Your task to perform on an android device: empty trash in google photos Image 0: 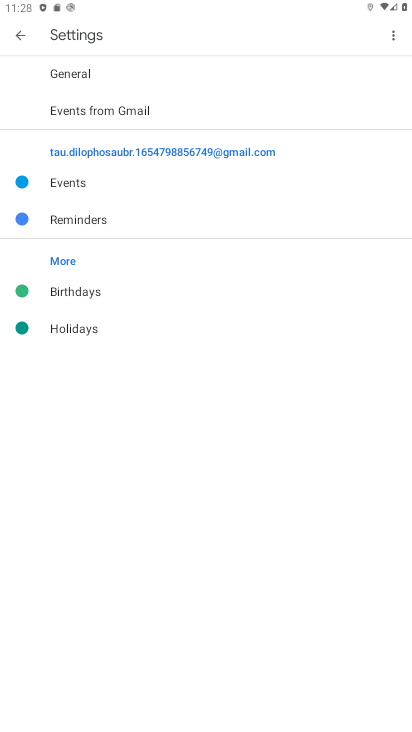
Step 0: press home button
Your task to perform on an android device: empty trash in google photos Image 1: 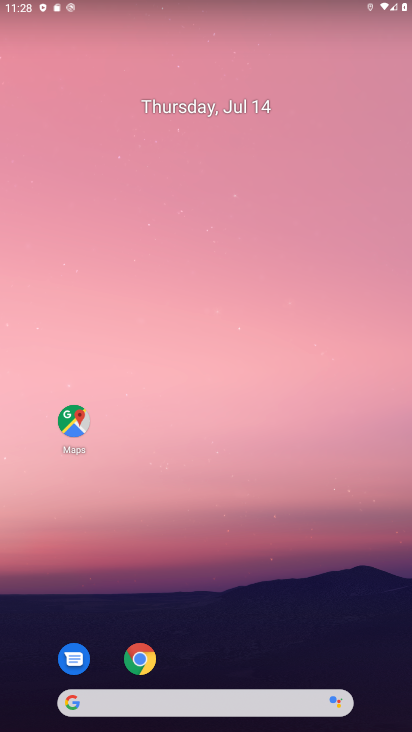
Step 1: drag from (212, 669) to (223, 219)
Your task to perform on an android device: empty trash in google photos Image 2: 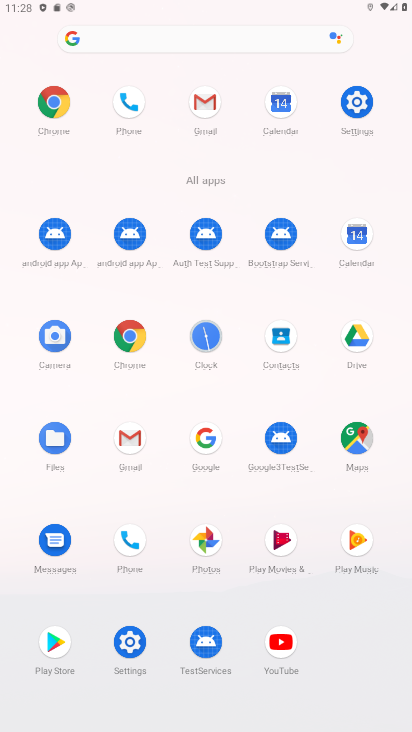
Step 2: click (203, 540)
Your task to perform on an android device: empty trash in google photos Image 3: 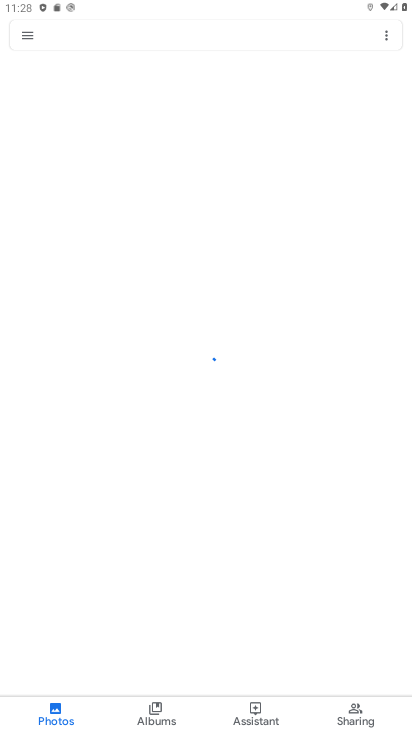
Step 3: click (27, 26)
Your task to perform on an android device: empty trash in google photos Image 4: 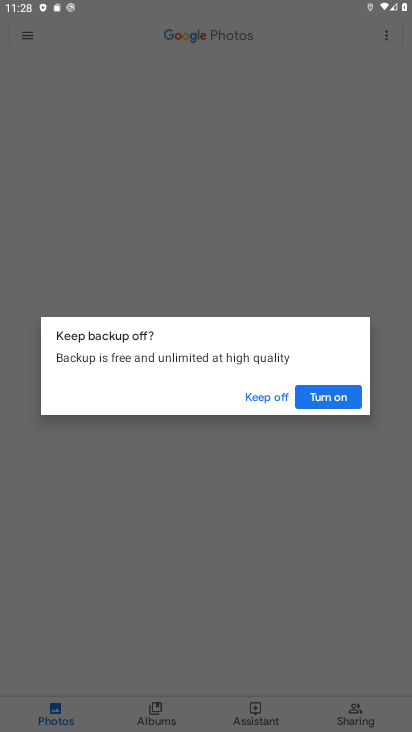
Step 4: click (261, 397)
Your task to perform on an android device: empty trash in google photos Image 5: 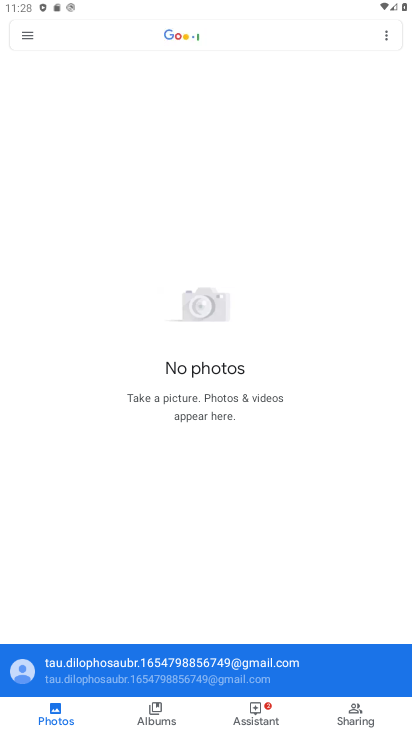
Step 5: click (28, 29)
Your task to perform on an android device: empty trash in google photos Image 6: 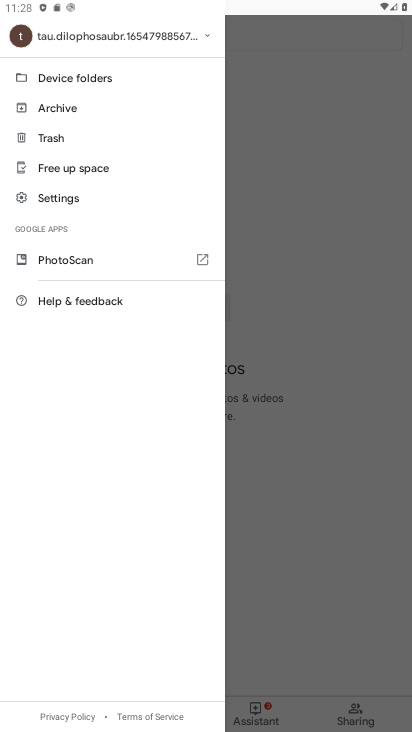
Step 6: click (61, 133)
Your task to perform on an android device: empty trash in google photos Image 7: 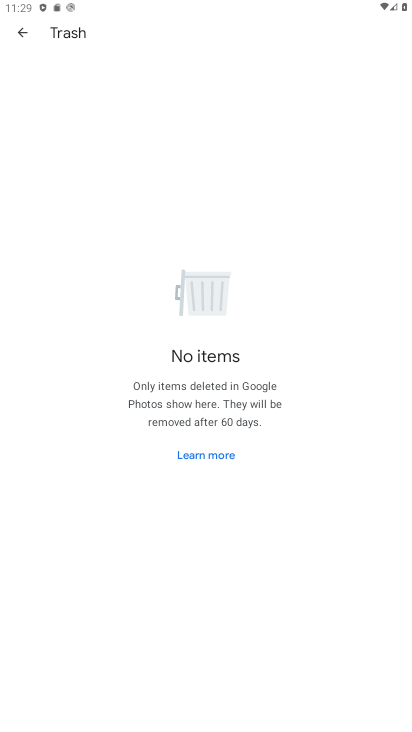
Step 7: task complete